Your task to perform on an android device: move a message to another label in the gmail app Image 0: 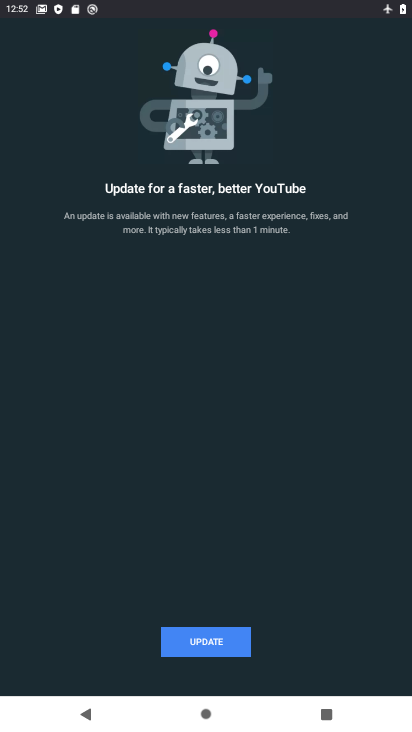
Step 0: press home button
Your task to perform on an android device: move a message to another label in the gmail app Image 1: 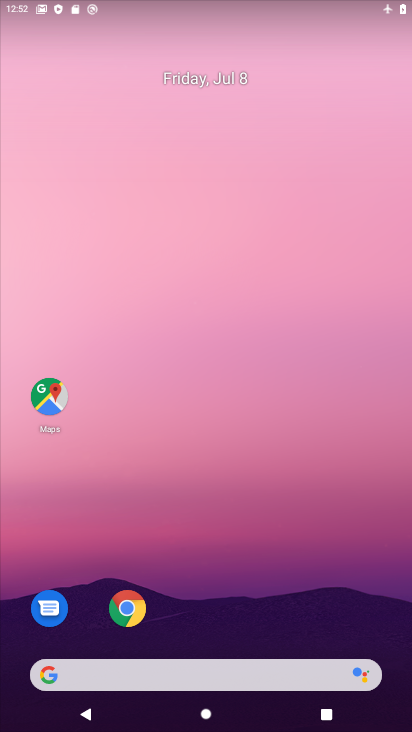
Step 1: drag from (376, 618) to (305, 96)
Your task to perform on an android device: move a message to another label in the gmail app Image 2: 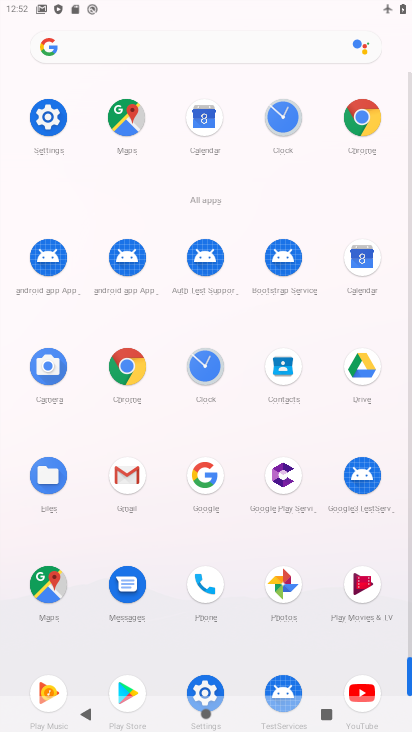
Step 2: click (128, 474)
Your task to perform on an android device: move a message to another label in the gmail app Image 3: 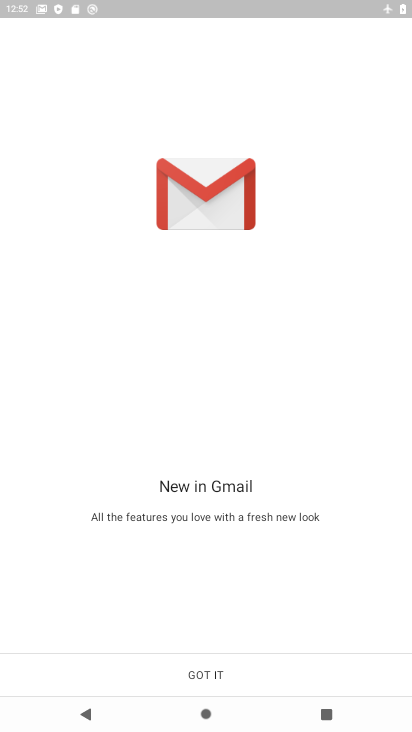
Step 3: click (194, 669)
Your task to perform on an android device: move a message to another label in the gmail app Image 4: 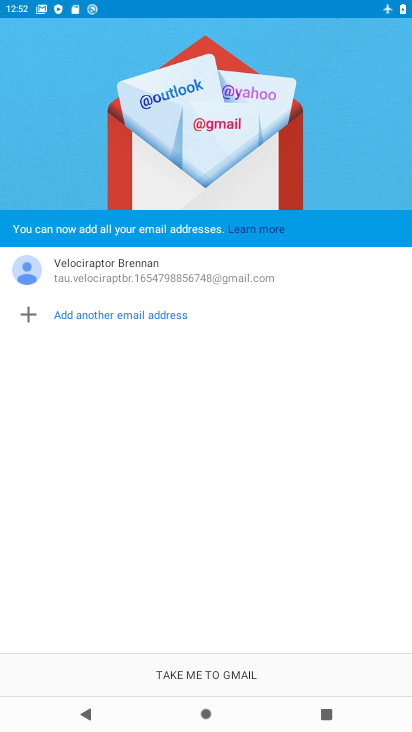
Step 4: click (206, 668)
Your task to perform on an android device: move a message to another label in the gmail app Image 5: 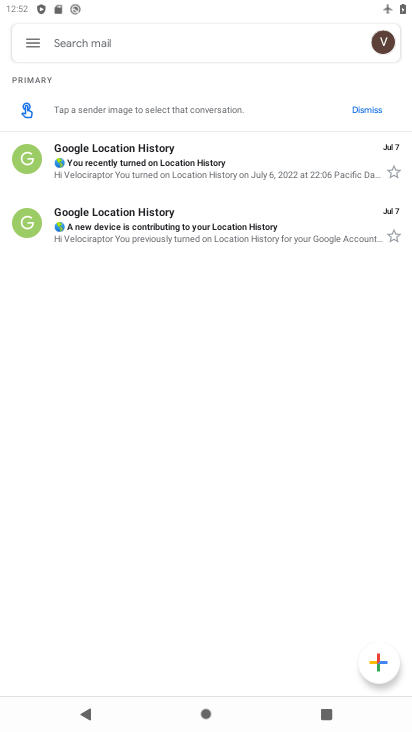
Step 5: click (142, 158)
Your task to perform on an android device: move a message to another label in the gmail app Image 6: 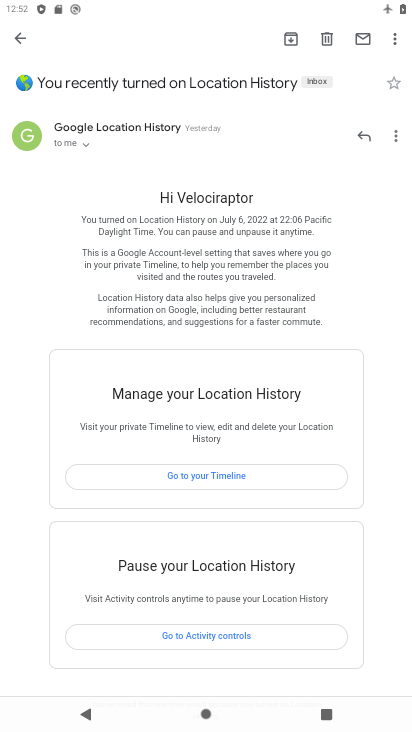
Step 6: click (393, 41)
Your task to perform on an android device: move a message to another label in the gmail app Image 7: 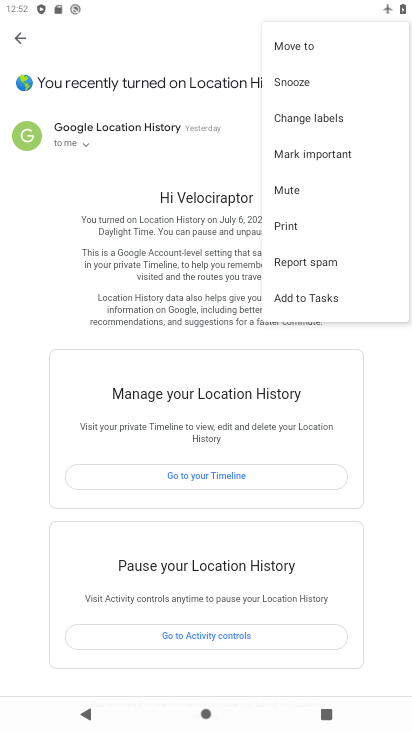
Step 7: click (293, 44)
Your task to perform on an android device: move a message to another label in the gmail app Image 8: 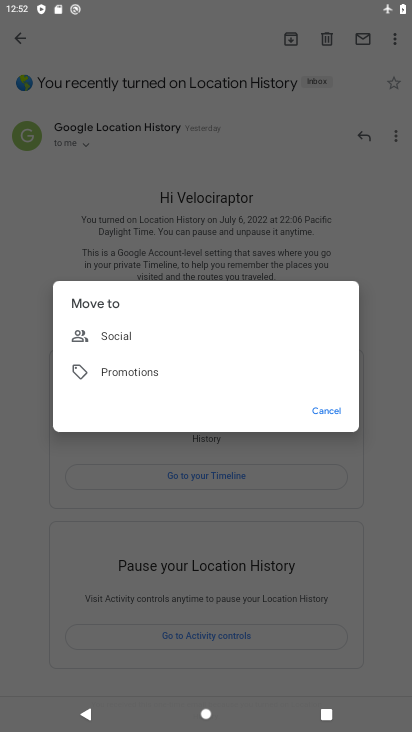
Step 8: click (111, 372)
Your task to perform on an android device: move a message to another label in the gmail app Image 9: 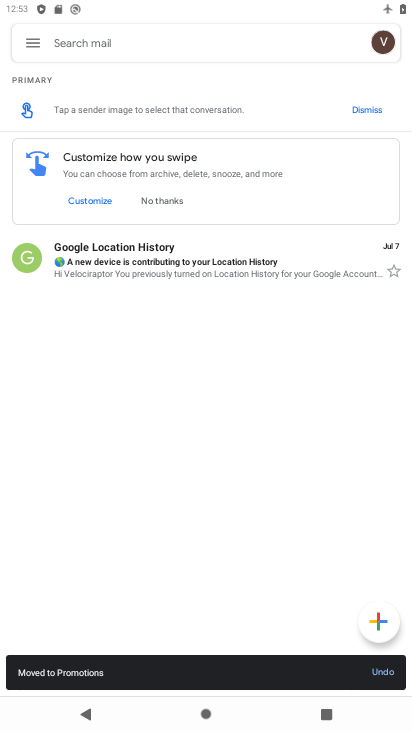
Step 9: task complete